Your task to perform on an android device: Go to privacy settings Image 0: 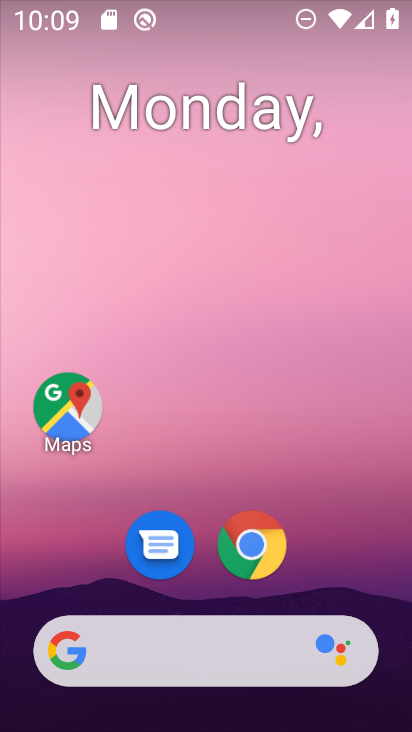
Step 0: drag from (51, 539) to (235, 108)
Your task to perform on an android device: Go to privacy settings Image 1: 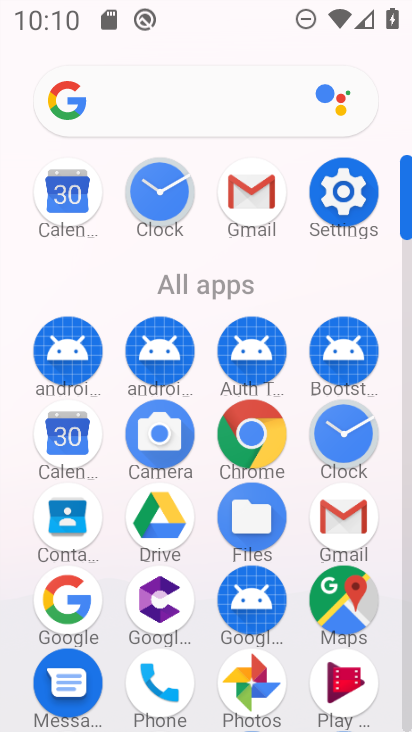
Step 1: click (357, 185)
Your task to perform on an android device: Go to privacy settings Image 2: 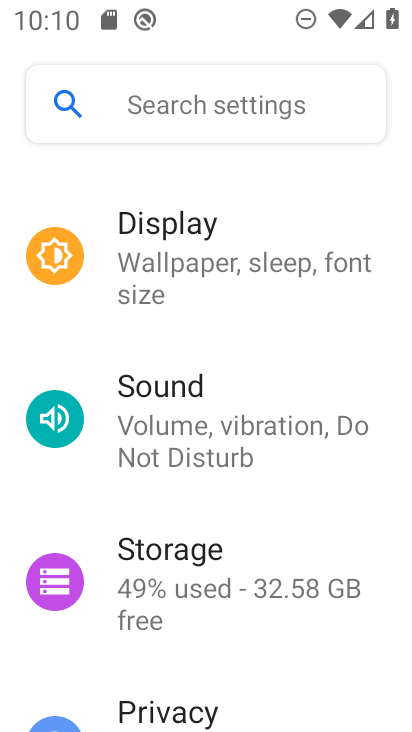
Step 2: drag from (11, 519) to (204, 184)
Your task to perform on an android device: Go to privacy settings Image 3: 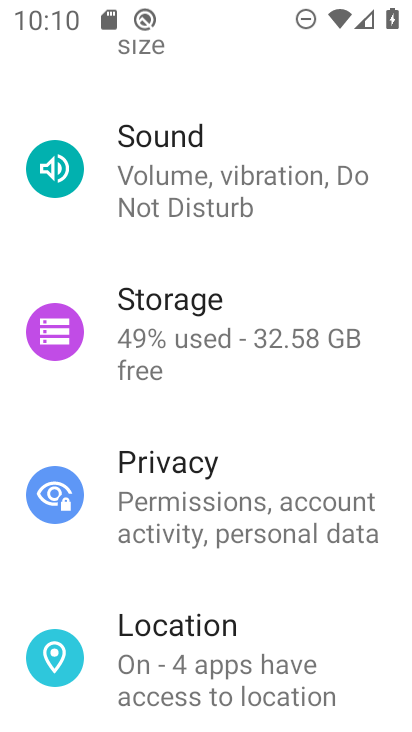
Step 3: click (170, 475)
Your task to perform on an android device: Go to privacy settings Image 4: 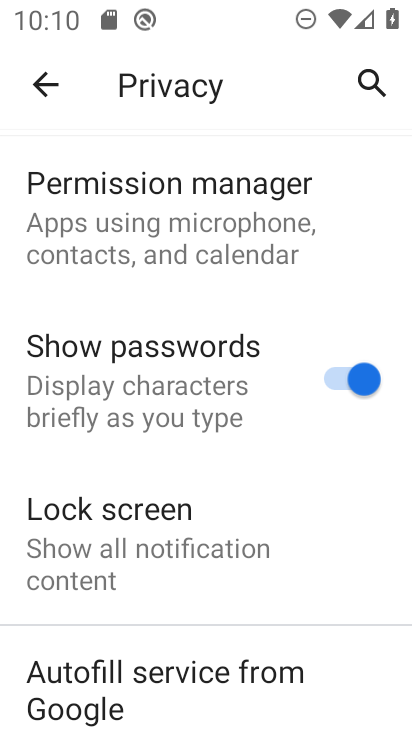
Step 4: task complete